Your task to perform on an android device: What's the weather today? Image 0: 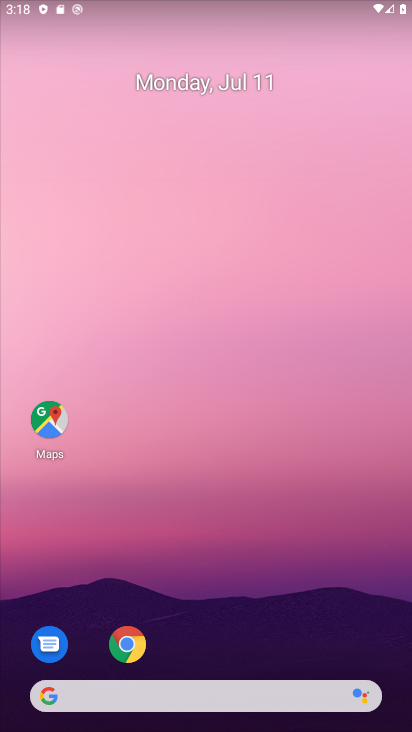
Step 0: drag from (270, 670) to (266, 203)
Your task to perform on an android device: What's the weather today? Image 1: 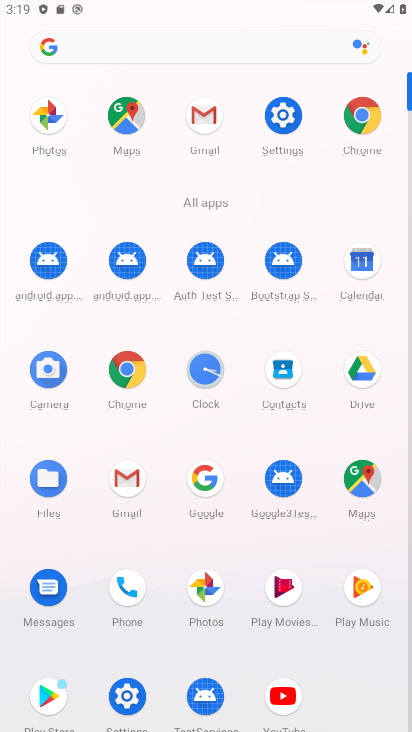
Step 1: click (124, 361)
Your task to perform on an android device: What's the weather today? Image 2: 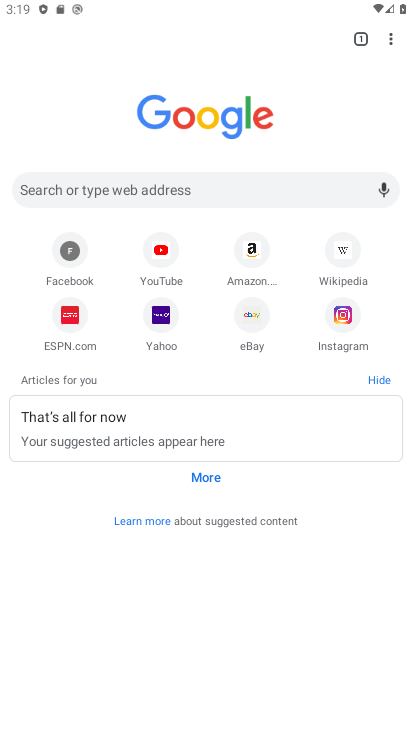
Step 2: click (237, 178)
Your task to perform on an android device: What's the weather today? Image 3: 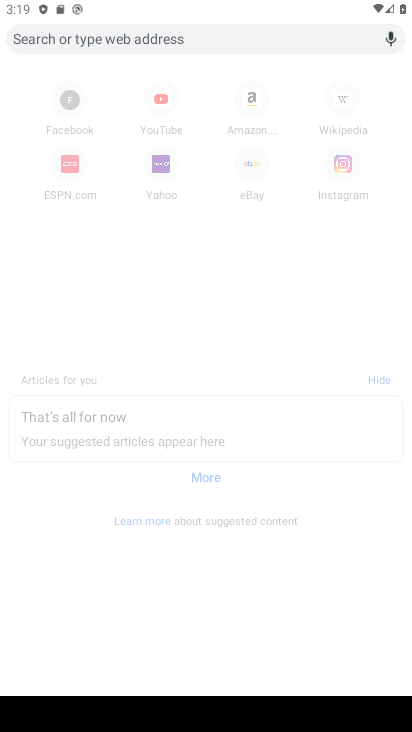
Step 3: type "What's the weather today "
Your task to perform on an android device: What's the weather today? Image 4: 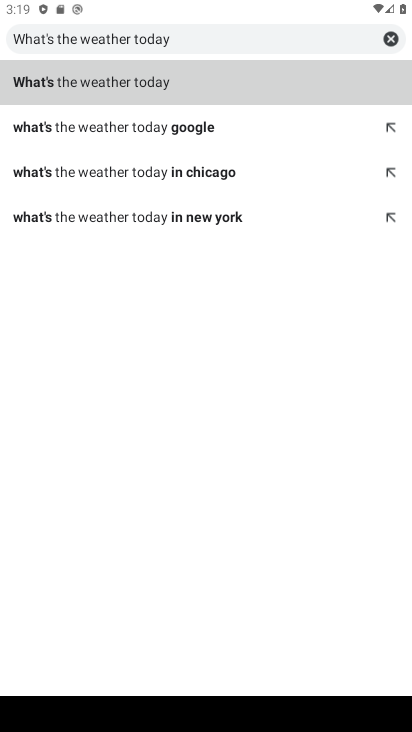
Step 4: click (168, 78)
Your task to perform on an android device: What's the weather today? Image 5: 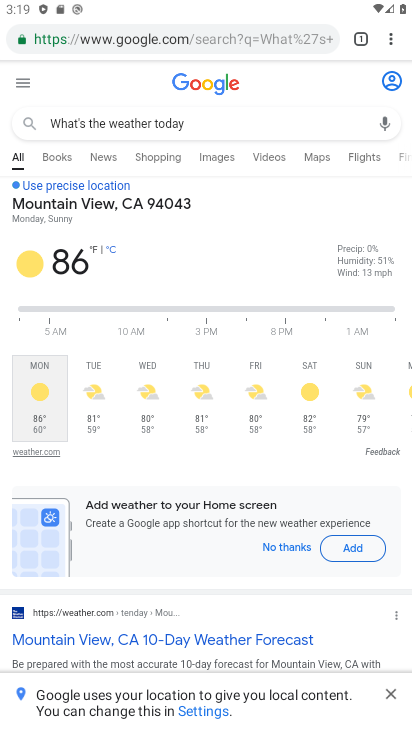
Step 5: task complete